Your task to perform on an android device: turn off wifi Image 0: 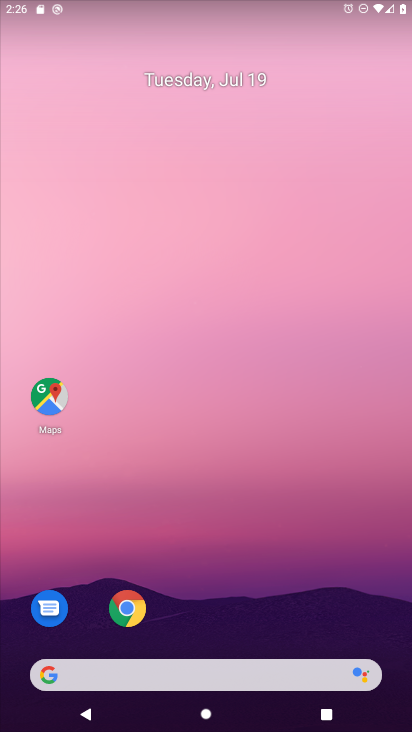
Step 0: drag from (235, 552) to (245, 111)
Your task to perform on an android device: turn off wifi Image 1: 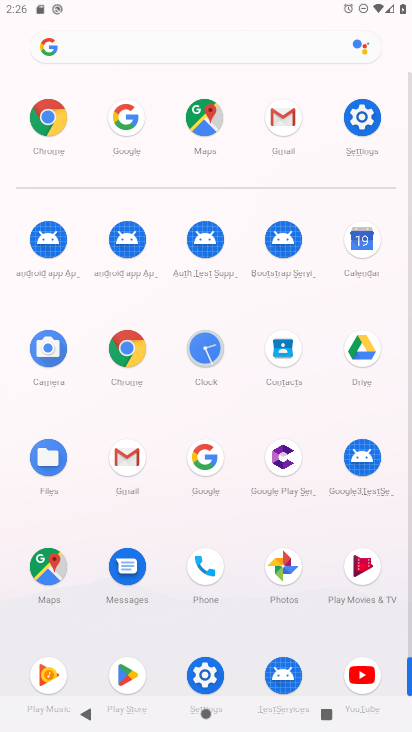
Step 1: click (366, 116)
Your task to perform on an android device: turn off wifi Image 2: 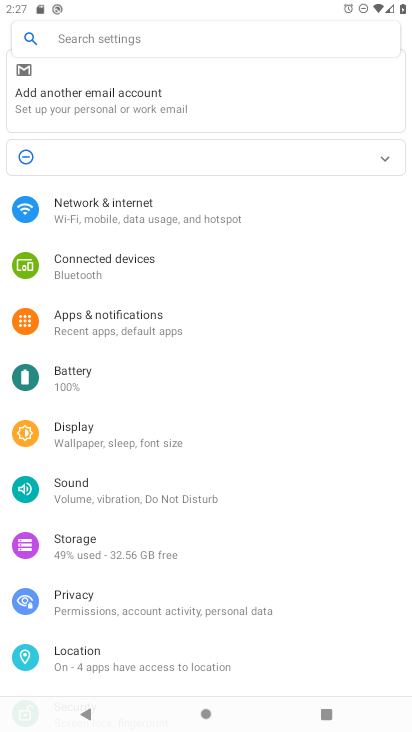
Step 2: click (178, 220)
Your task to perform on an android device: turn off wifi Image 3: 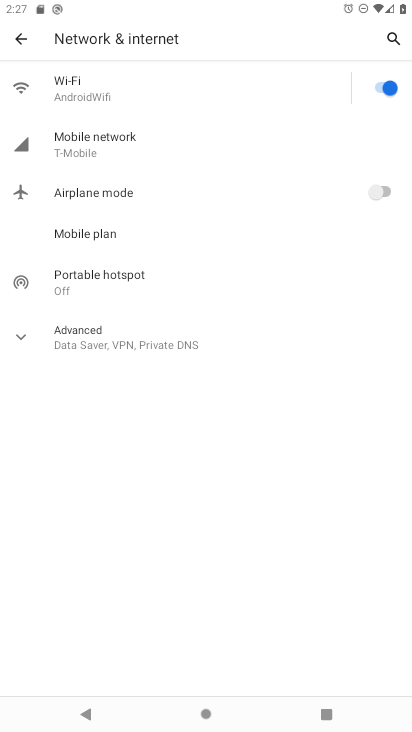
Step 3: click (386, 95)
Your task to perform on an android device: turn off wifi Image 4: 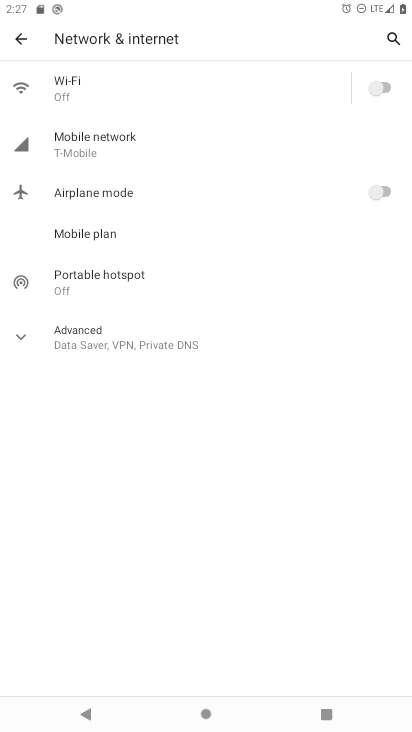
Step 4: click (386, 95)
Your task to perform on an android device: turn off wifi Image 5: 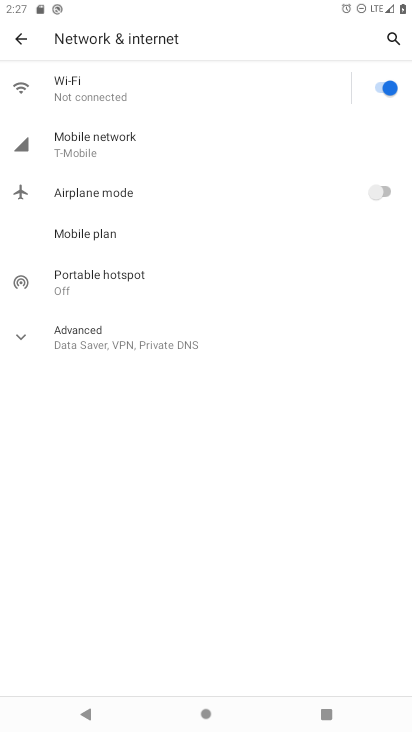
Step 5: click (383, 93)
Your task to perform on an android device: turn off wifi Image 6: 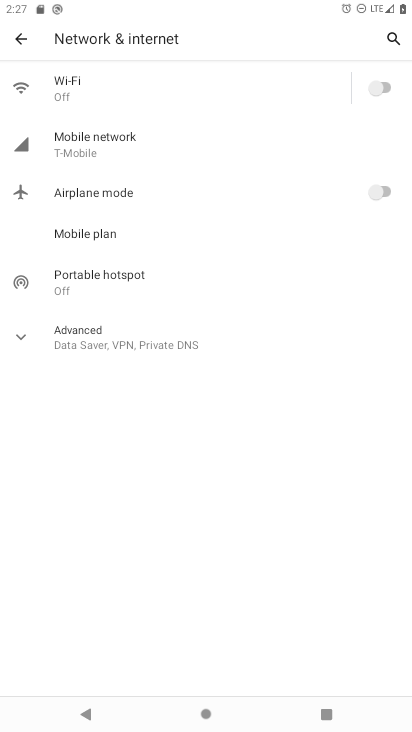
Step 6: task complete